Your task to perform on an android device: check out phone information Image 0: 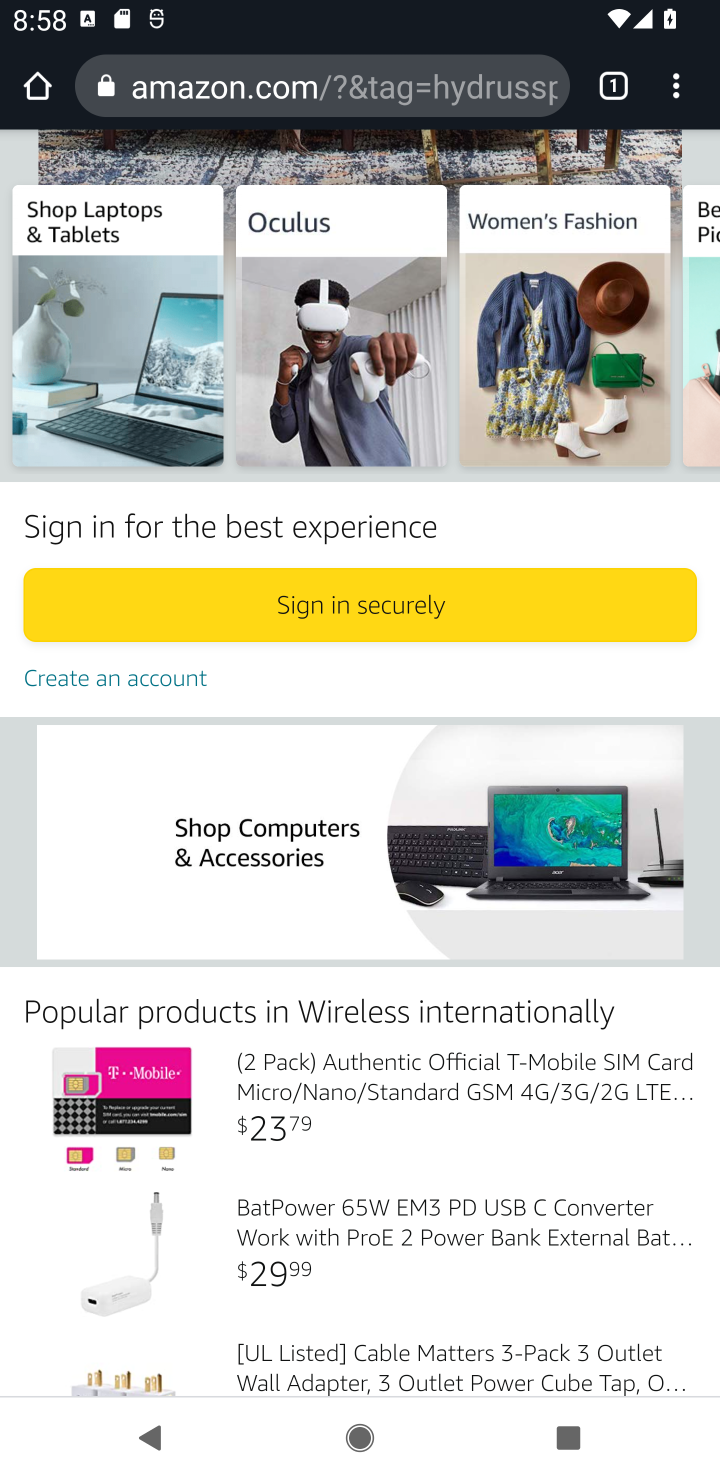
Step 0: press home button
Your task to perform on an android device: check out phone information Image 1: 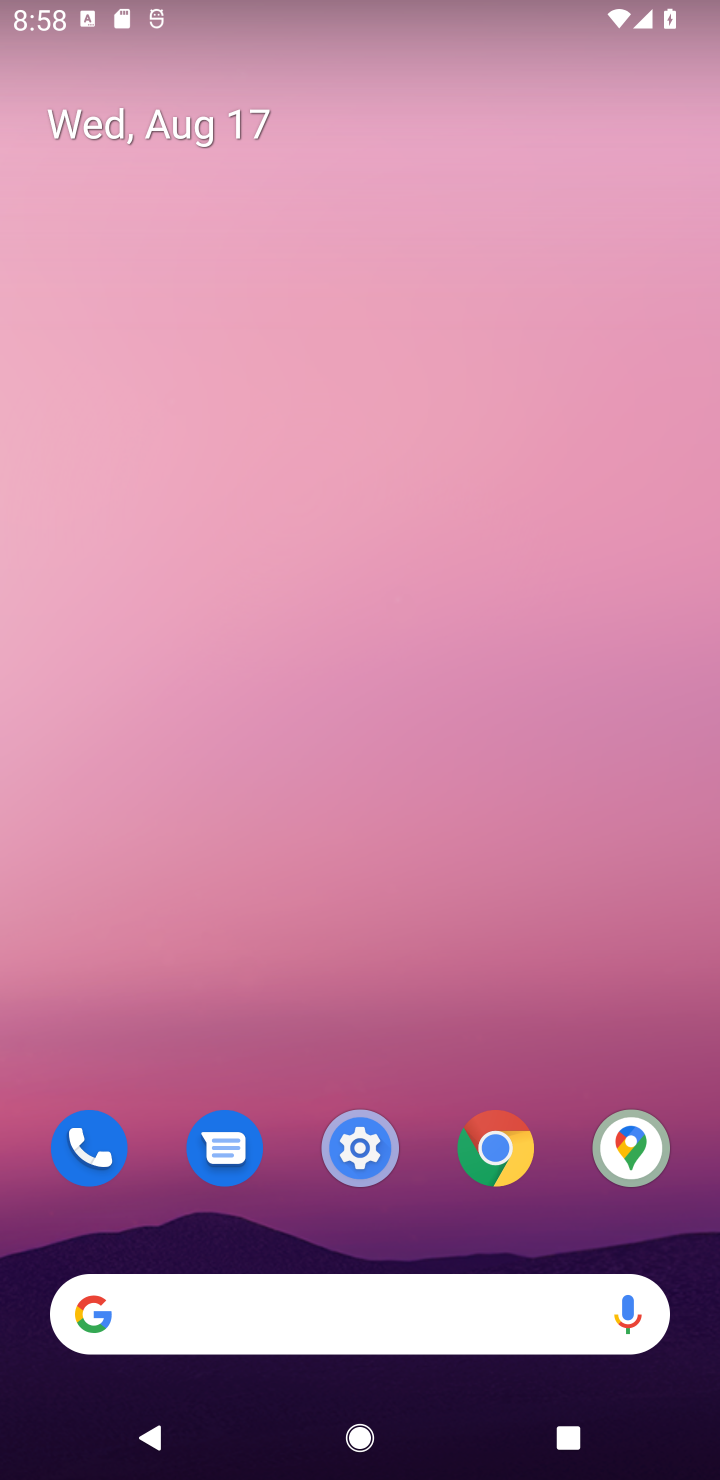
Step 1: click (366, 1151)
Your task to perform on an android device: check out phone information Image 2: 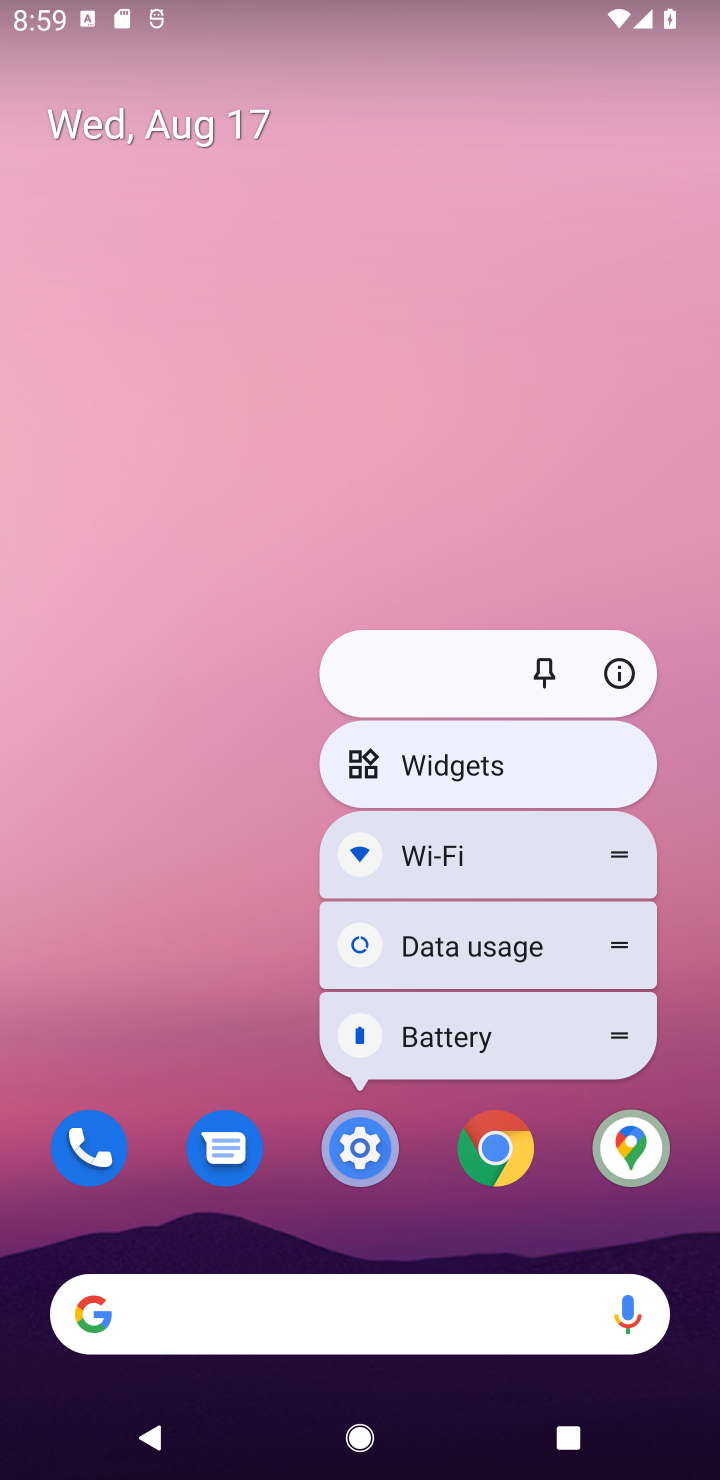
Step 2: click (360, 1143)
Your task to perform on an android device: check out phone information Image 3: 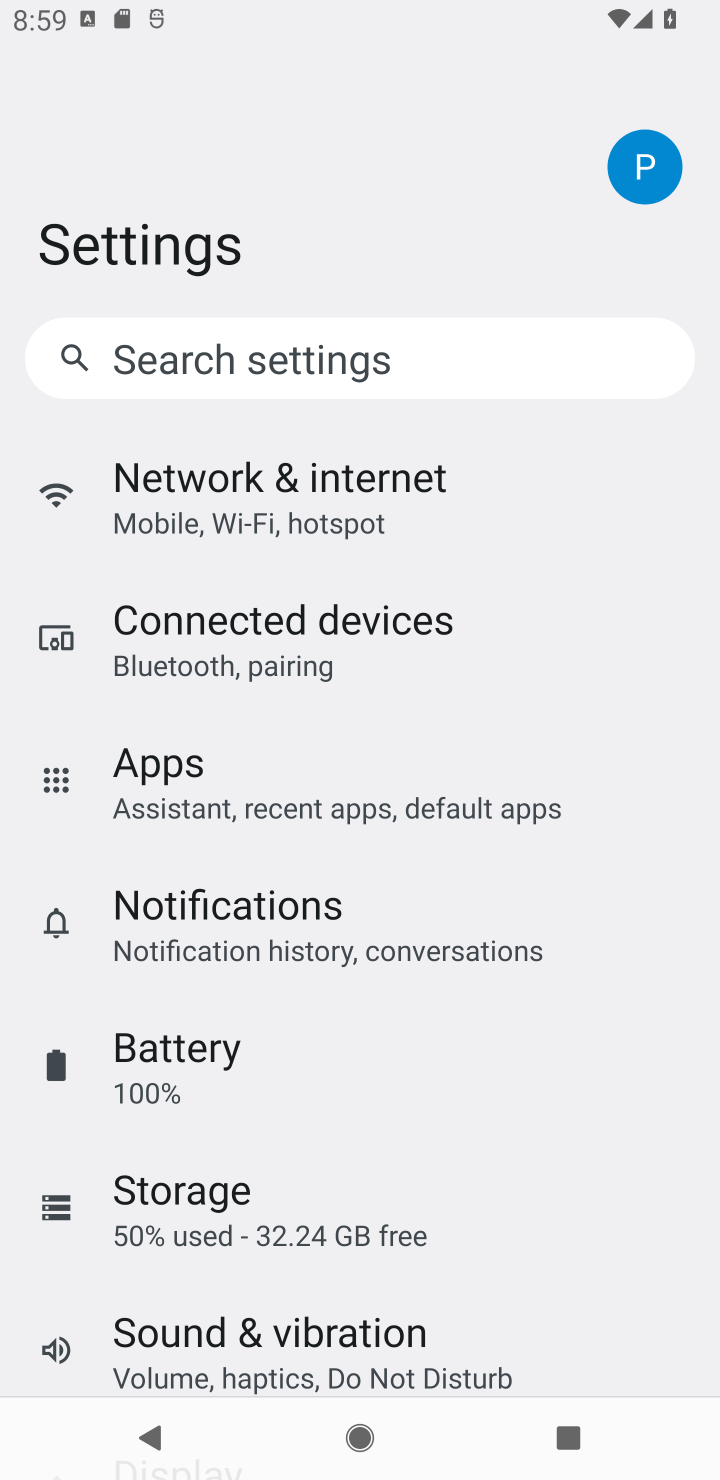
Step 3: drag from (587, 1270) to (617, 549)
Your task to perform on an android device: check out phone information Image 4: 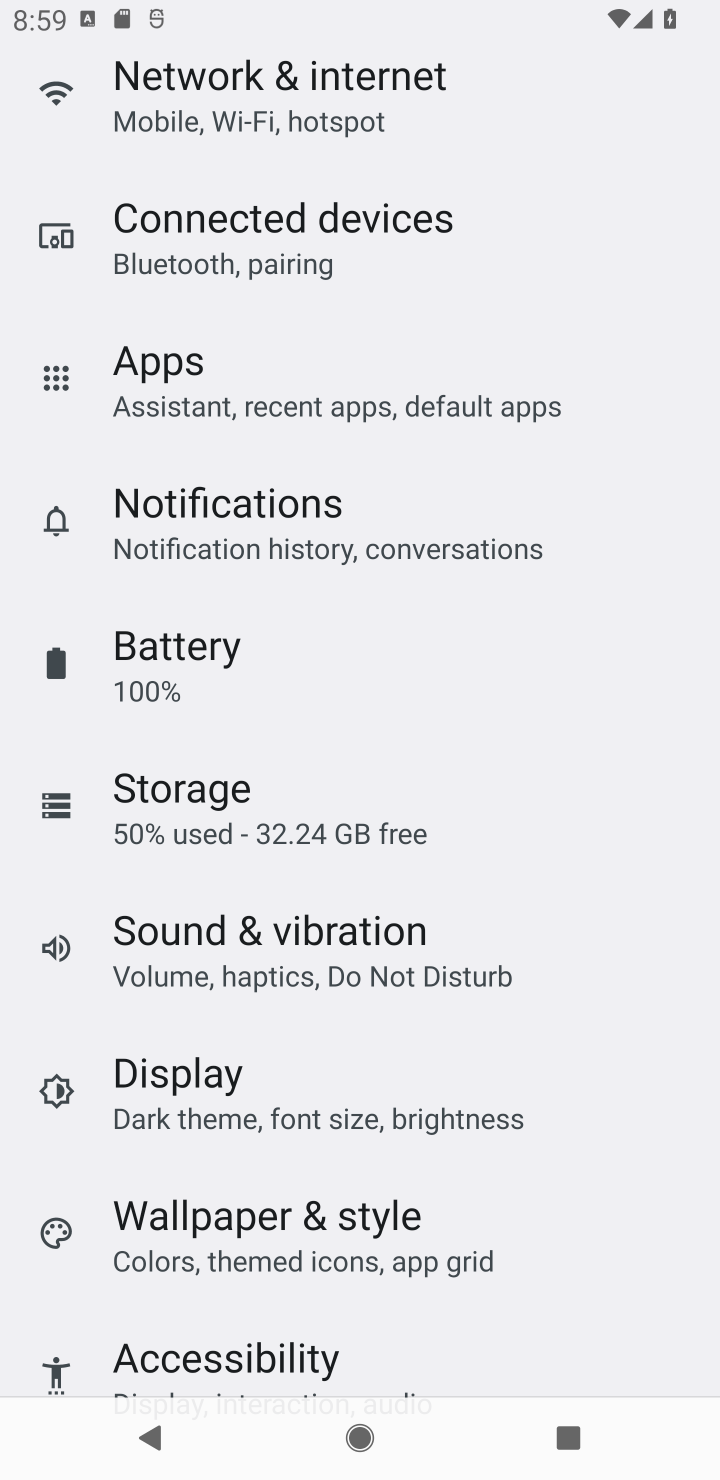
Step 4: drag from (564, 1274) to (667, 596)
Your task to perform on an android device: check out phone information Image 5: 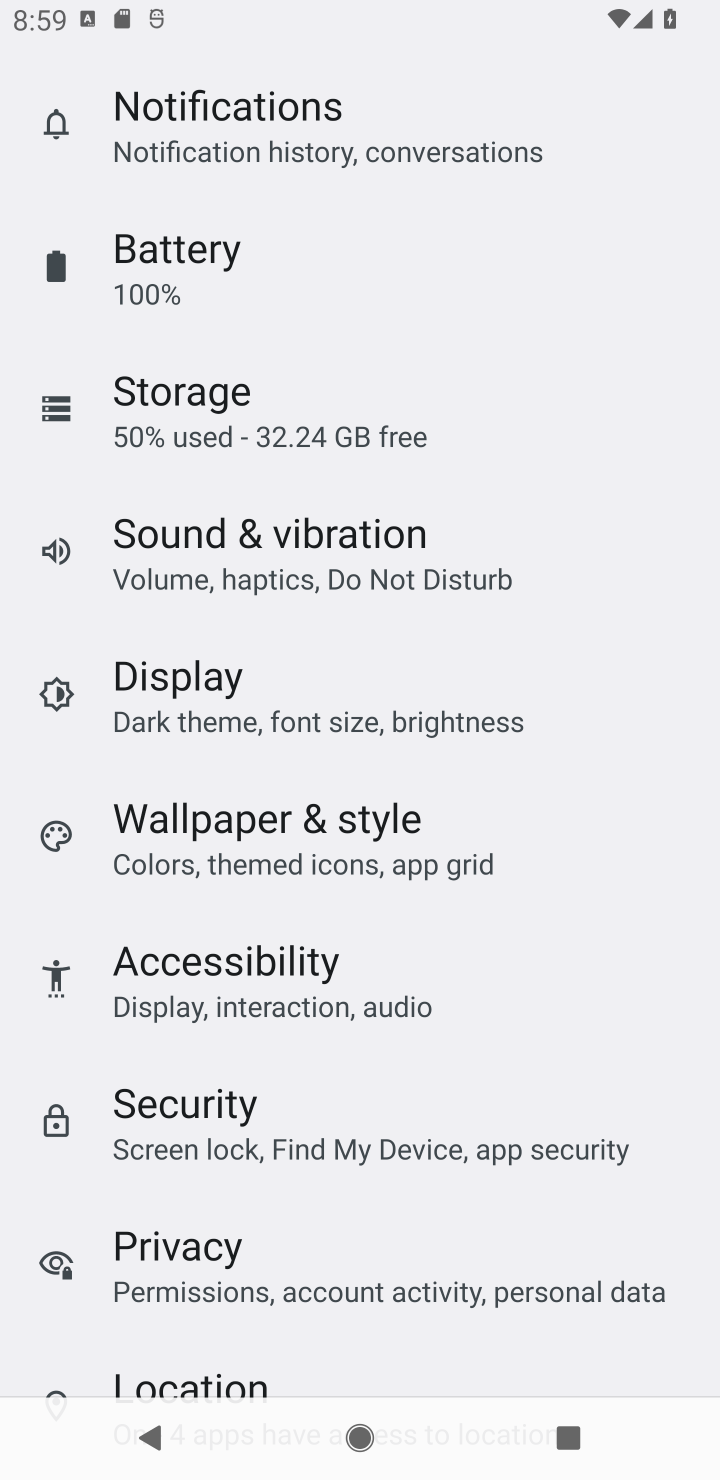
Step 5: drag from (579, 1180) to (610, 353)
Your task to perform on an android device: check out phone information Image 6: 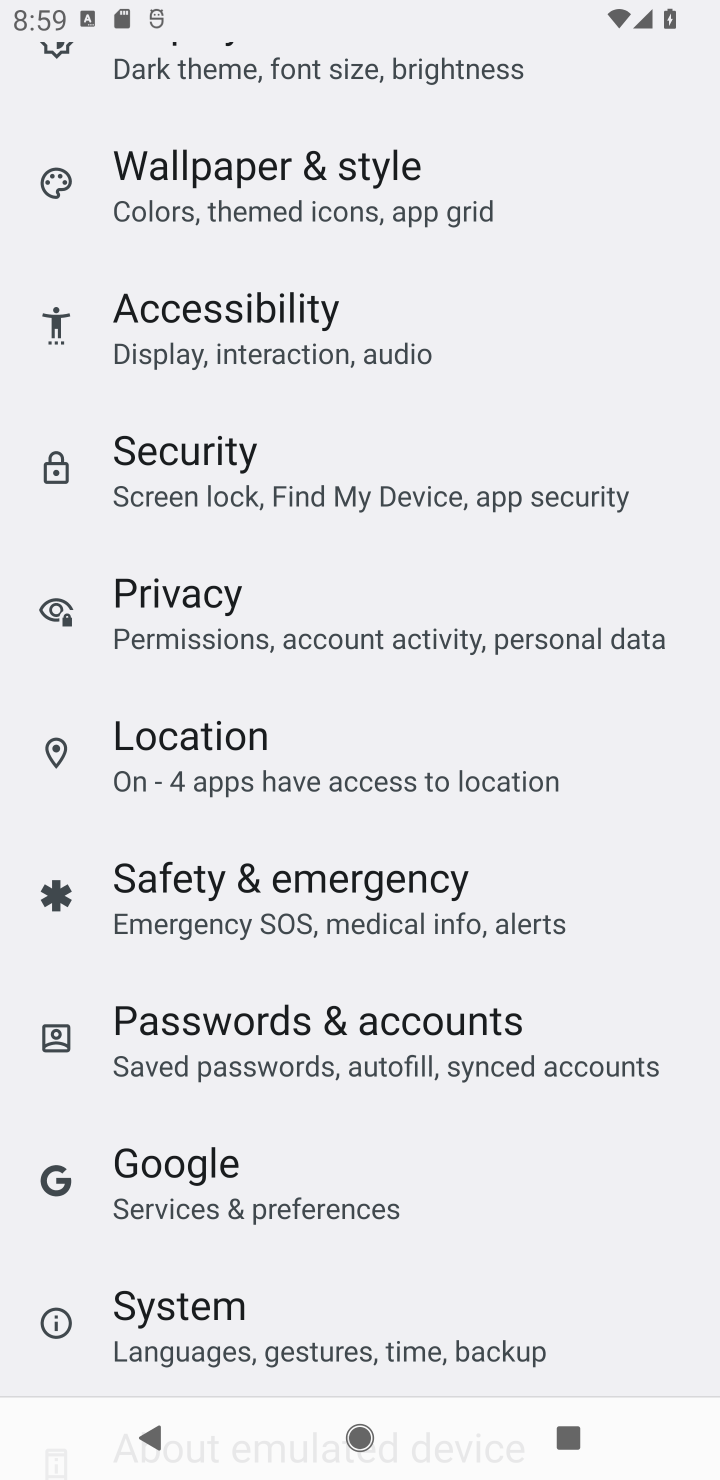
Step 6: drag from (515, 1275) to (563, 399)
Your task to perform on an android device: check out phone information Image 7: 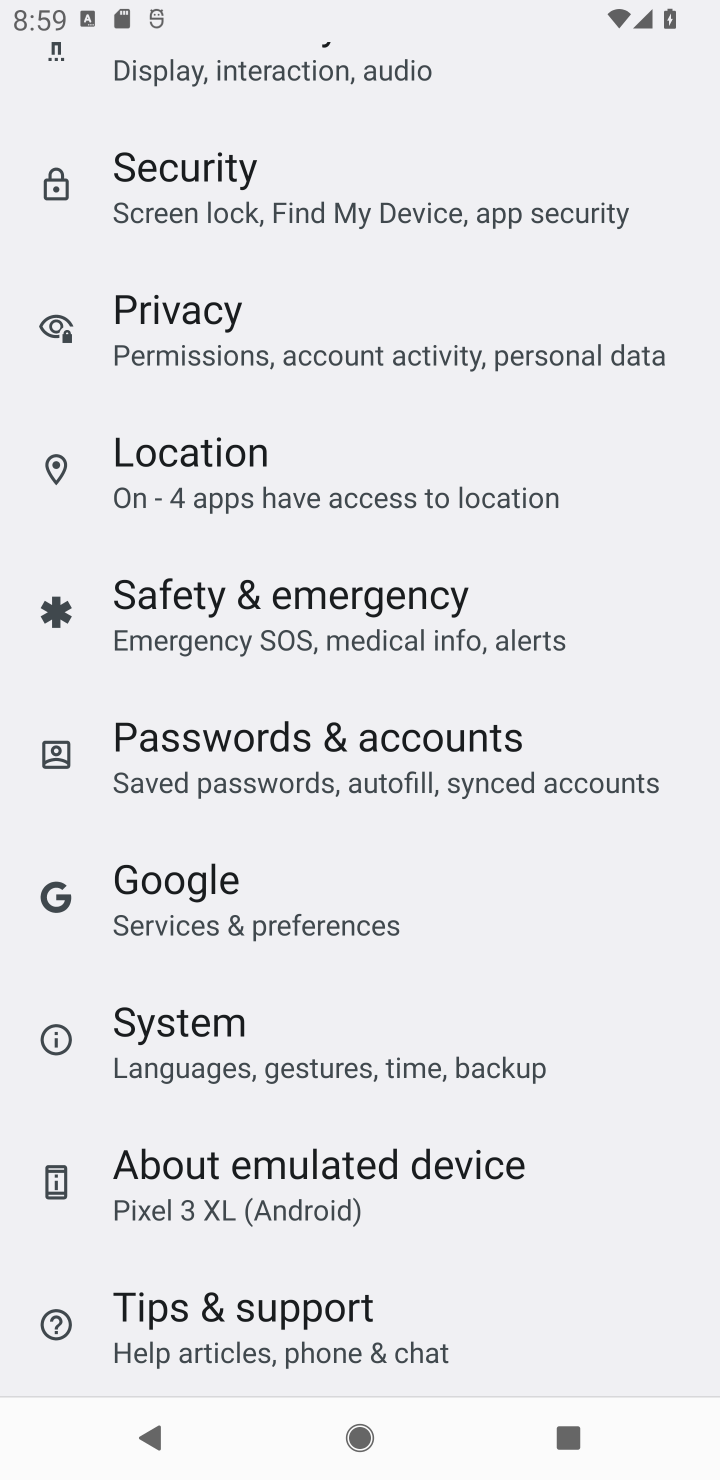
Step 7: click (258, 1197)
Your task to perform on an android device: check out phone information Image 8: 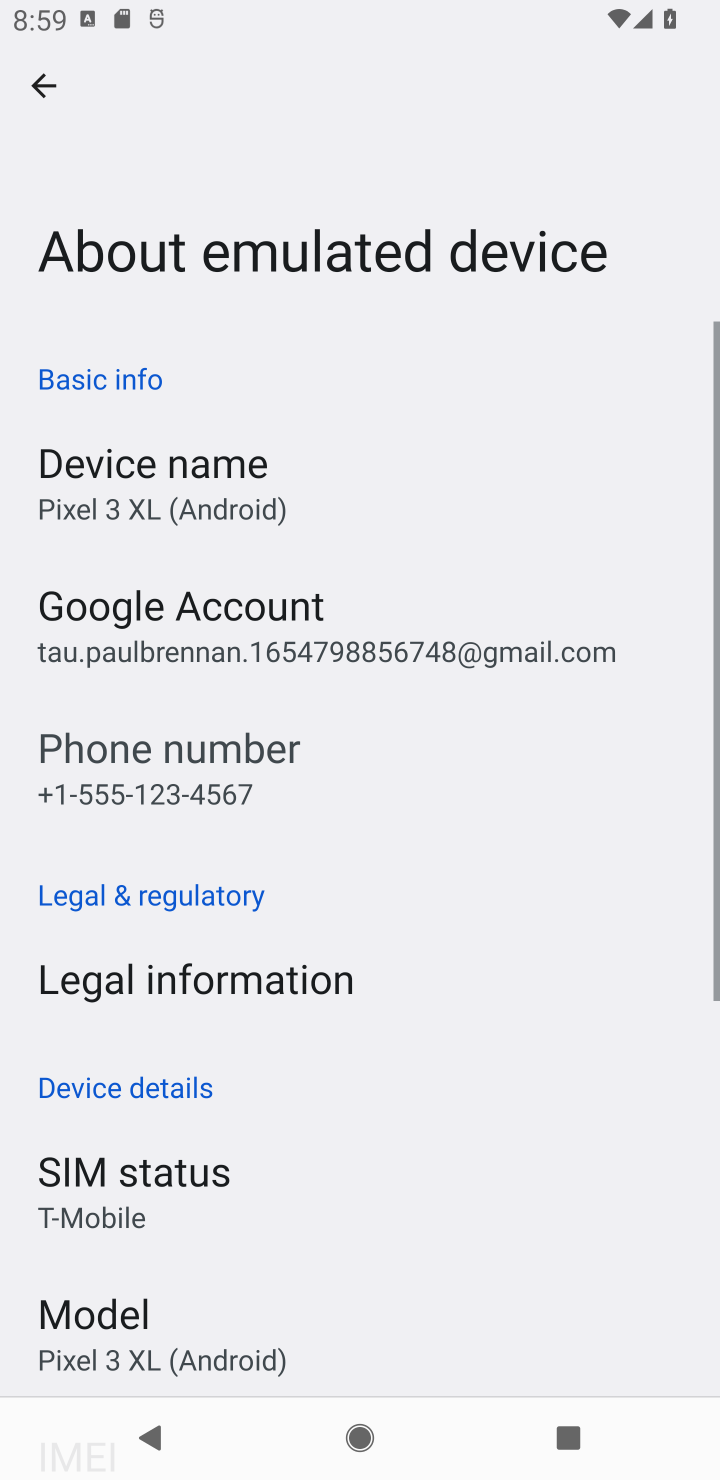
Step 8: drag from (497, 1224) to (486, 606)
Your task to perform on an android device: check out phone information Image 9: 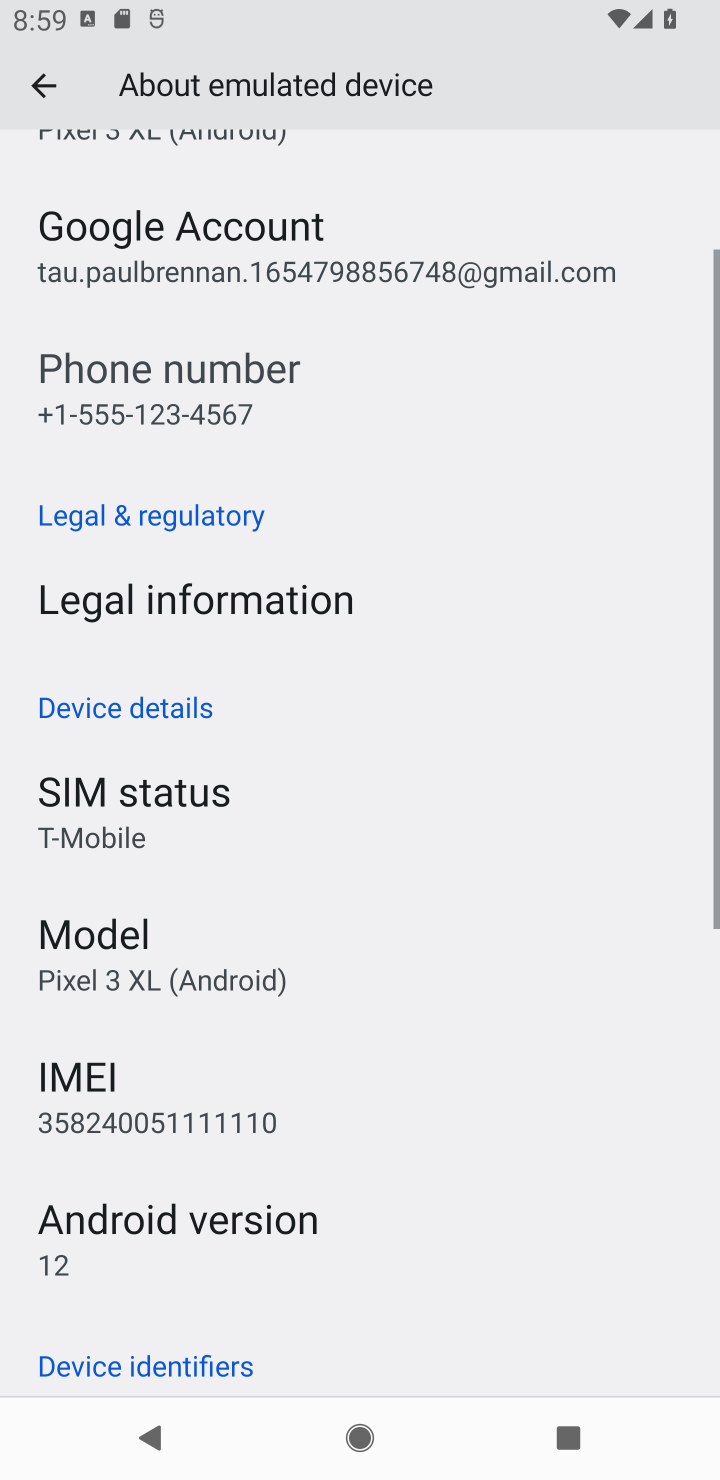
Step 9: drag from (364, 1157) to (421, 551)
Your task to perform on an android device: check out phone information Image 10: 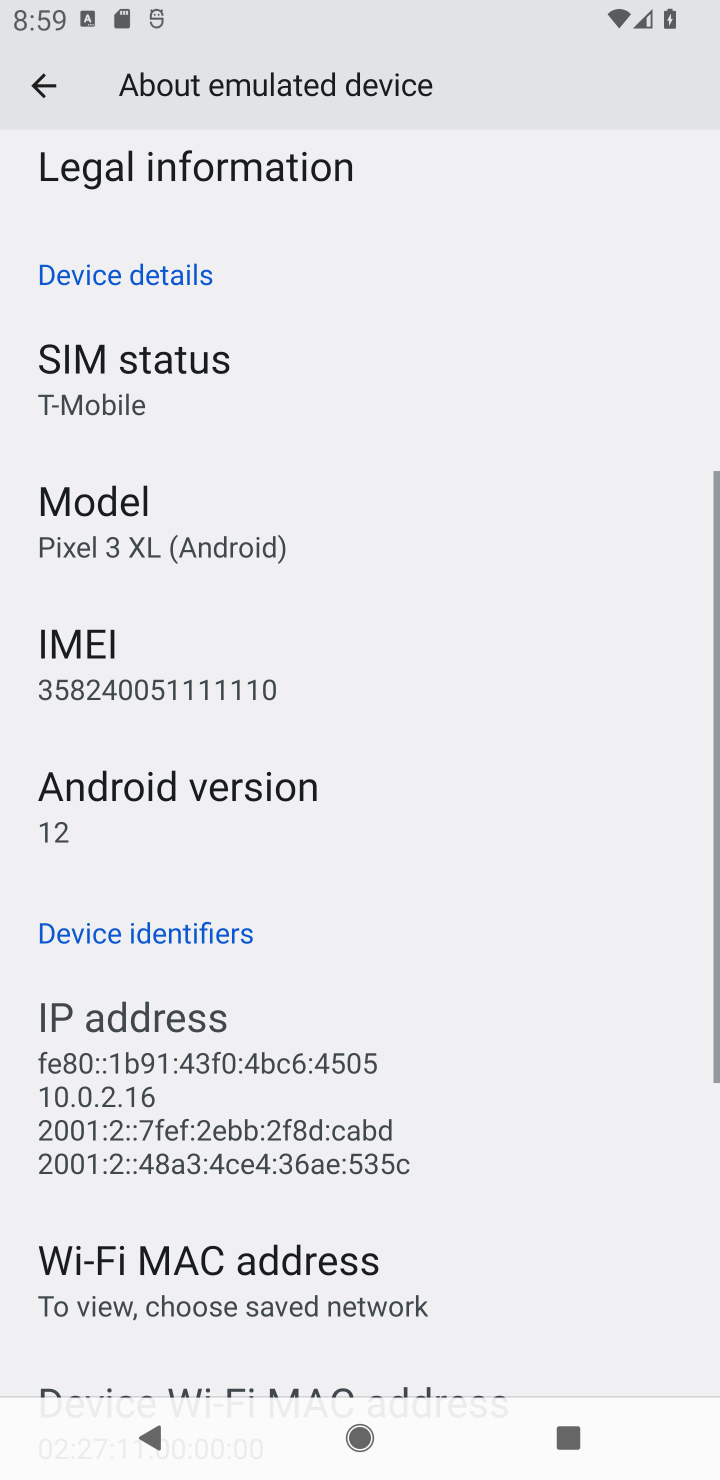
Step 10: drag from (447, 1045) to (508, 467)
Your task to perform on an android device: check out phone information Image 11: 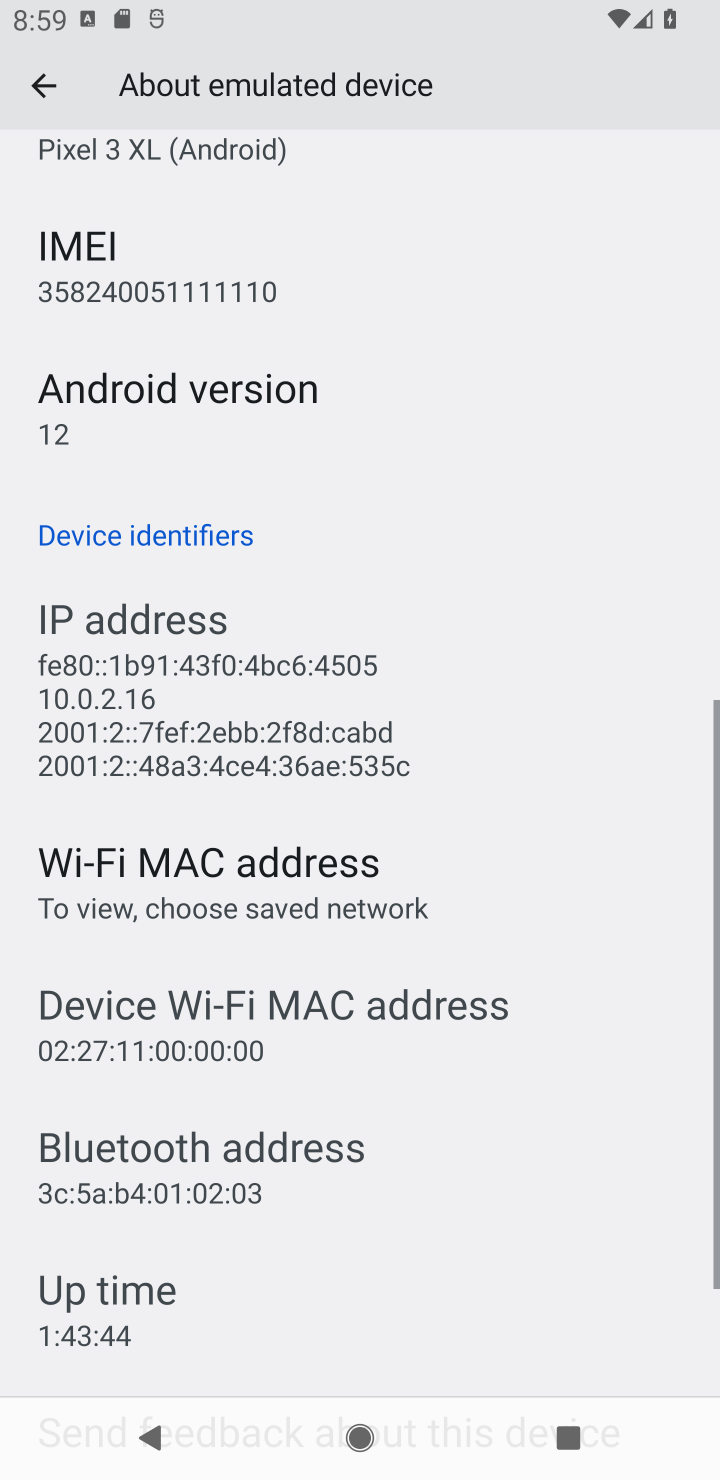
Step 11: click (536, 343)
Your task to perform on an android device: check out phone information Image 12: 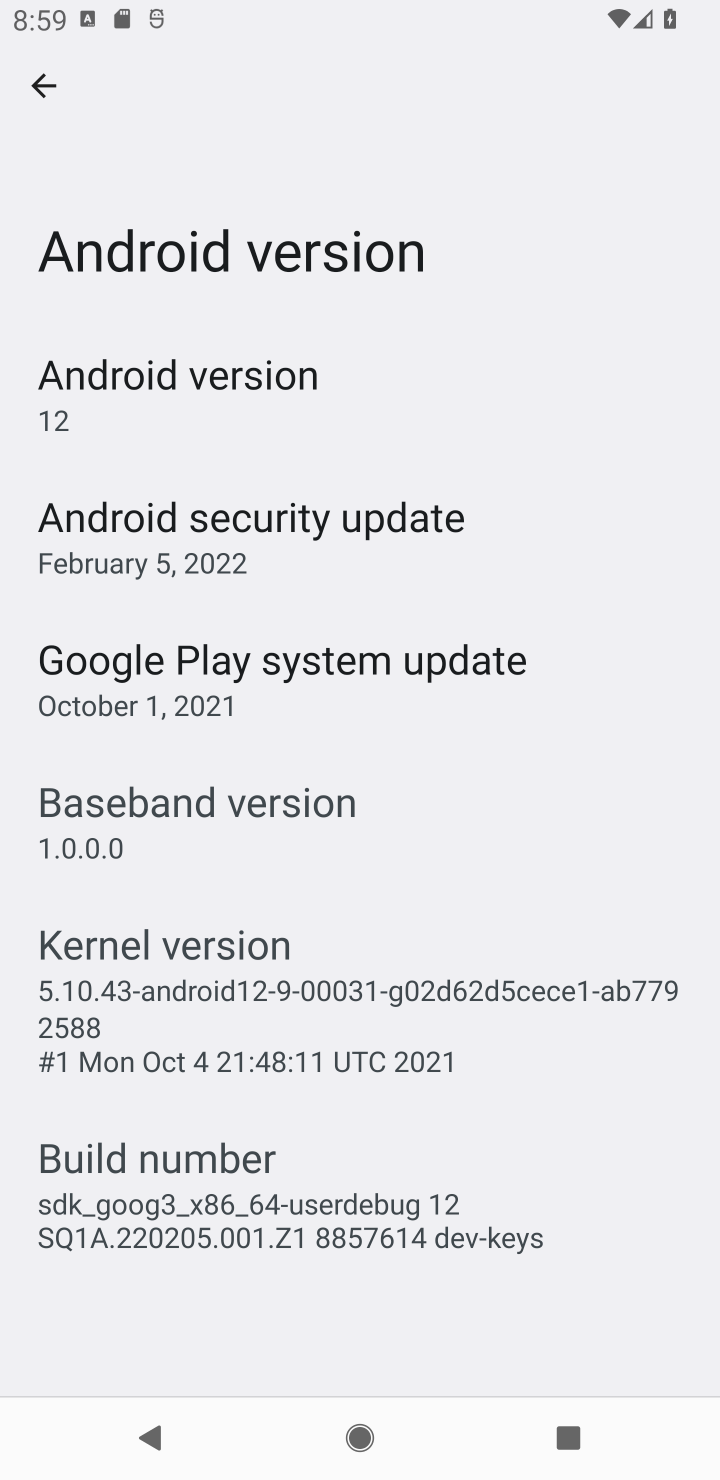
Step 12: task complete